Your task to perform on an android device: clear history in the chrome app Image 0: 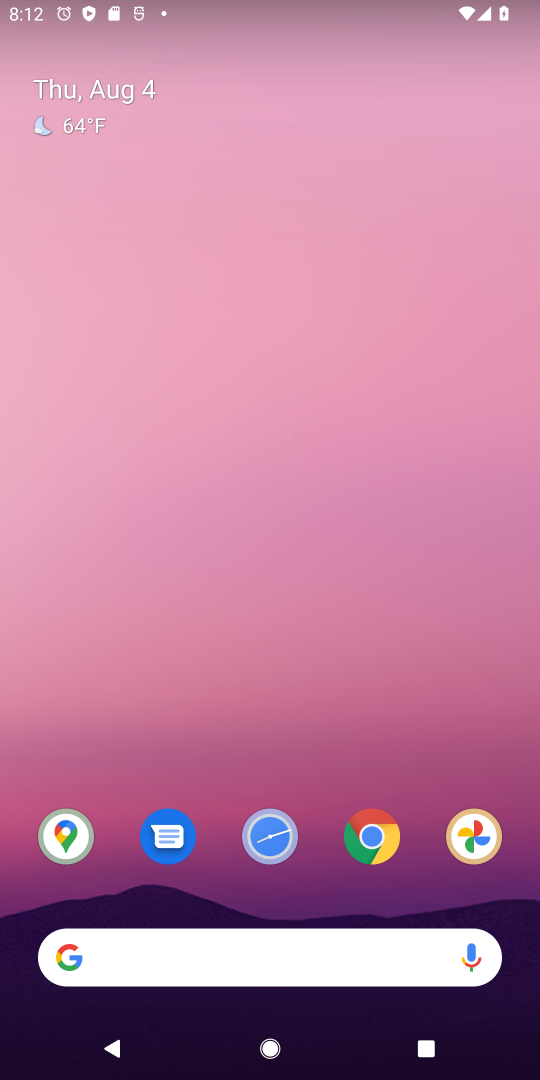
Step 0: click (366, 838)
Your task to perform on an android device: clear history in the chrome app Image 1: 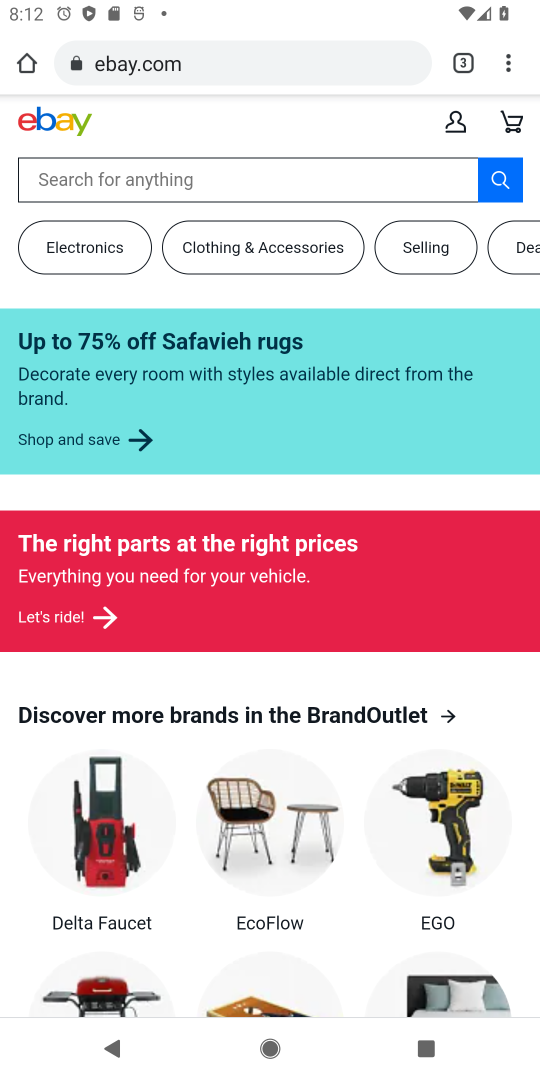
Step 1: drag from (510, 60) to (338, 317)
Your task to perform on an android device: clear history in the chrome app Image 2: 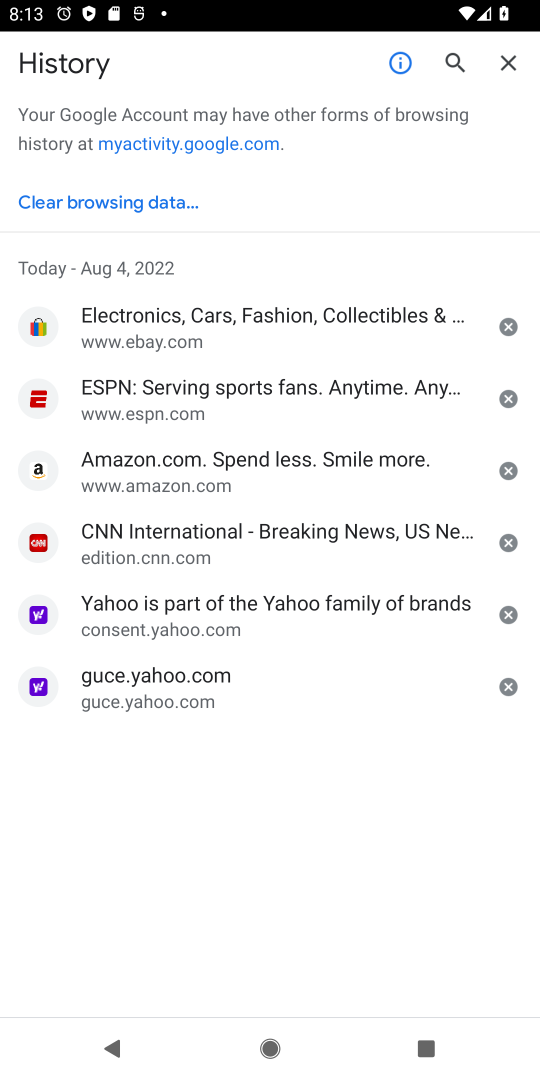
Step 2: click (88, 195)
Your task to perform on an android device: clear history in the chrome app Image 3: 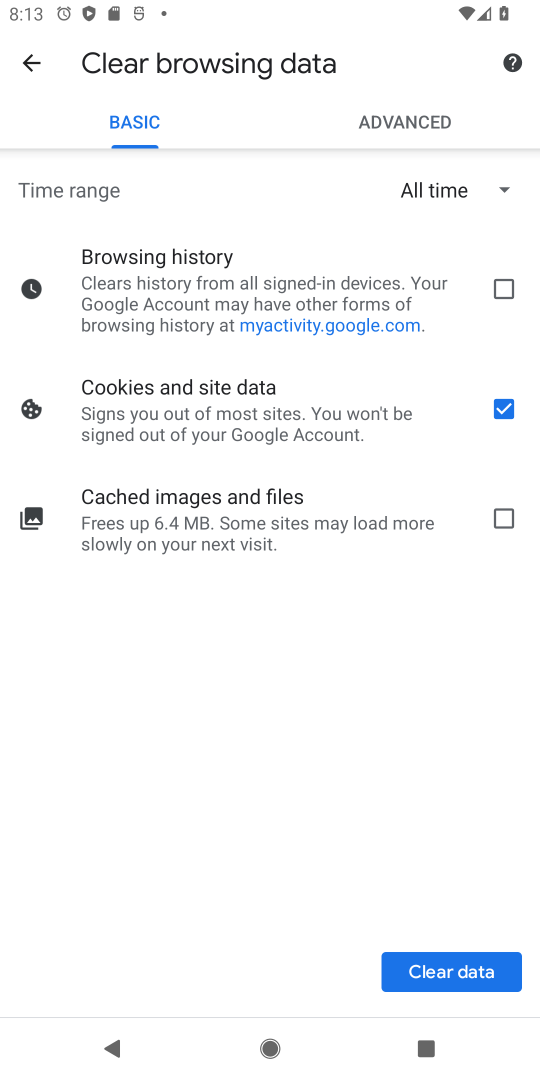
Step 3: click (487, 282)
Your task to perform on an android device: clear history in the chrome app Image 4: 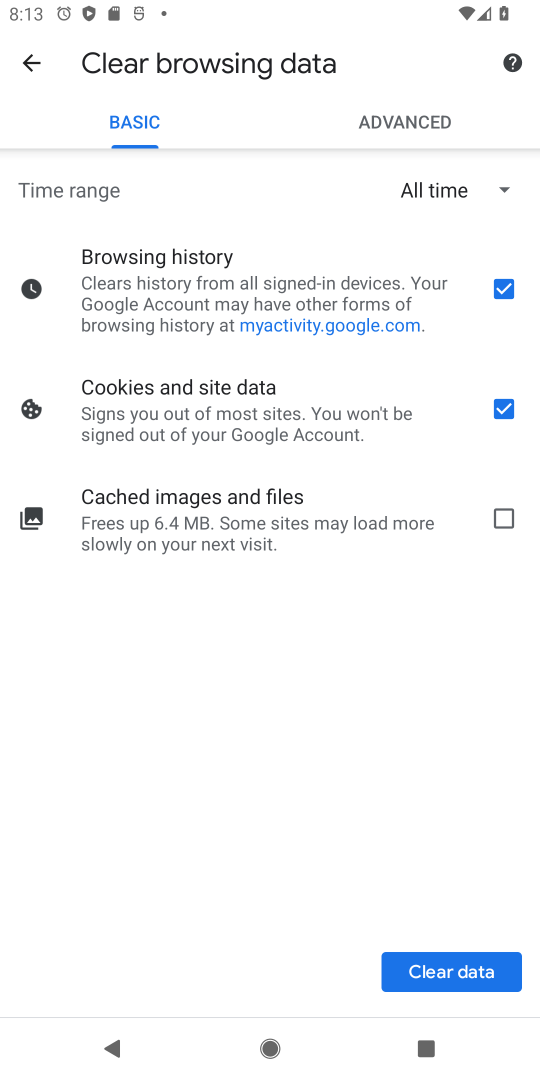
Step 4: click (489, 521)
Your task to perform on an android device: clear history in the chrome app Image 5: 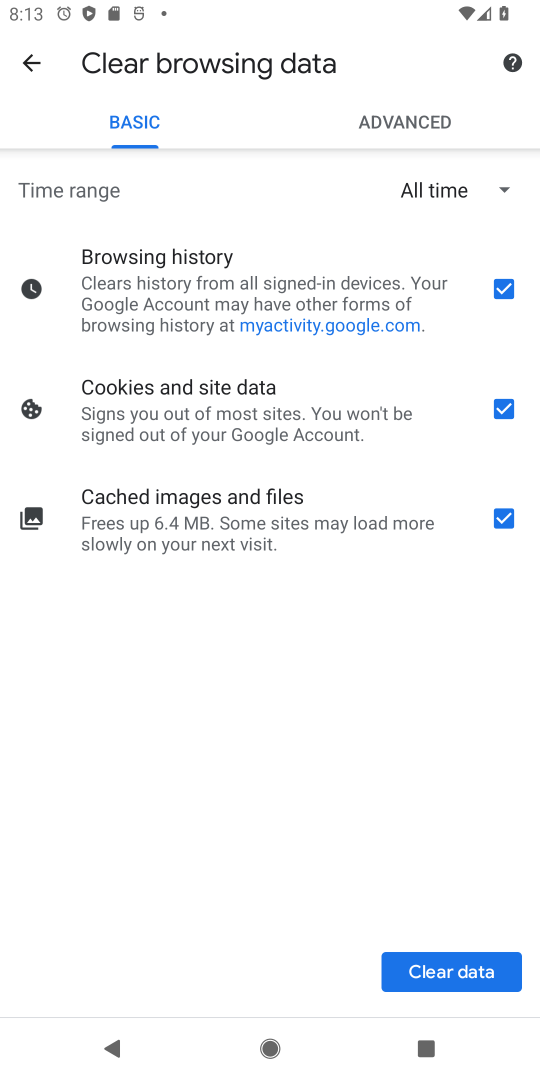
Step 5: click (454, 974)
Your task to perform on an android device: clear history in the chrome app Image 6: 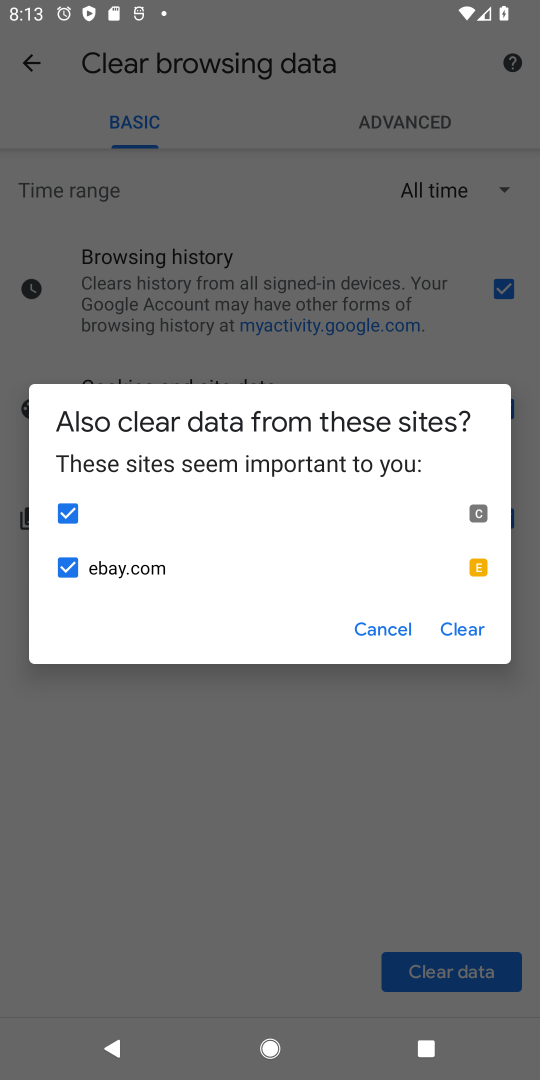
Step 6: click (443, 626)
Your task to perform on an android device: clear history in the chrome app Image 7: 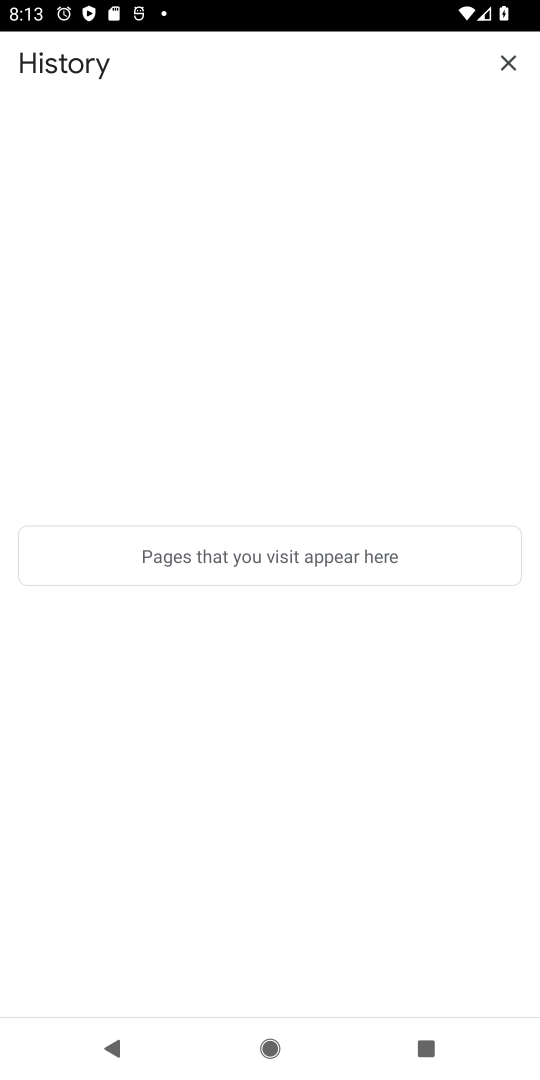
Step 7: task complete